Your task to perform on an android device: refresh tabs in the chrome app Image 0: 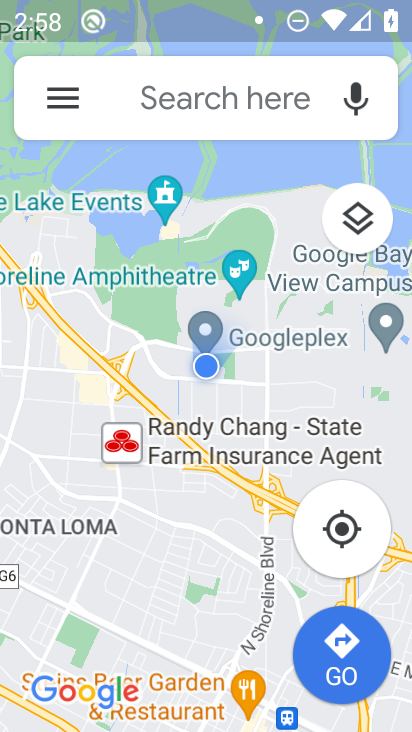
Step 0: press home button
Your task to perform on an android device: refresh tabs in the chrome app Image 1: 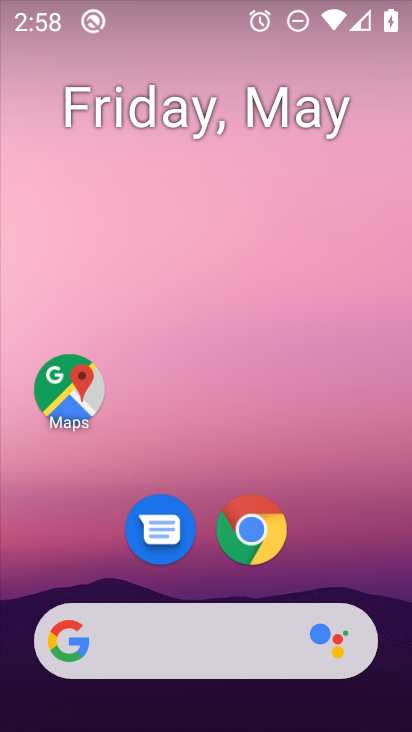
Step 1: drag from (409, 529) to (397, 173)
Your task to perform on an android device: refresh tabs in the chrome app Image 2: 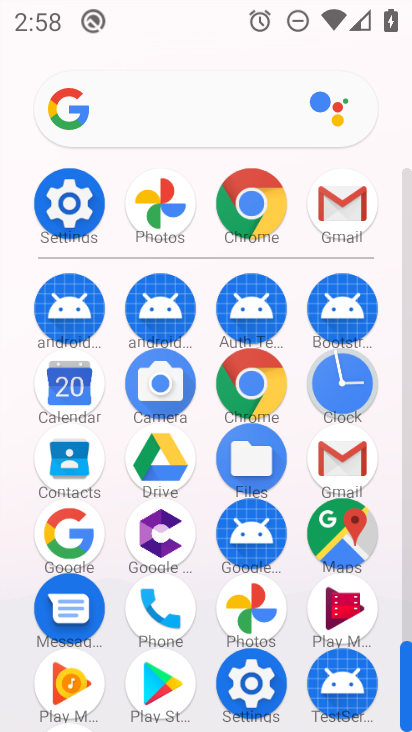
Step 2: click (247, 204)
Your task to perform on an android device: refresh tabs in the chrome app Image 3: 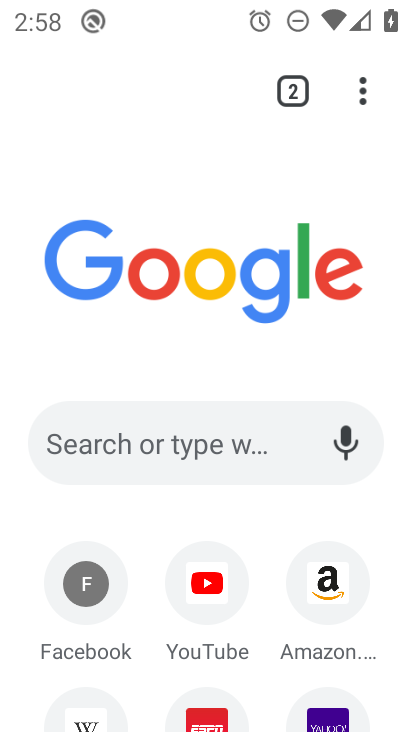
Step 3: click (361, 79)
Your task to perform on an android device: refresh tabs in the chrome app Image 4: 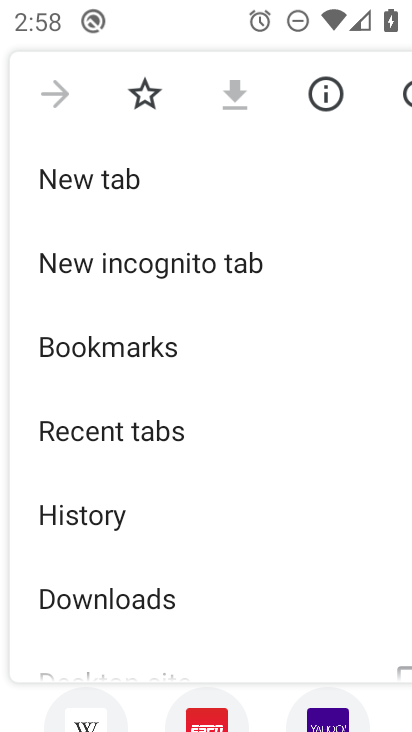
Step 4: click (407, 89)
Your task to perform on an android device: refresh tabs in the chrome app Image 5: 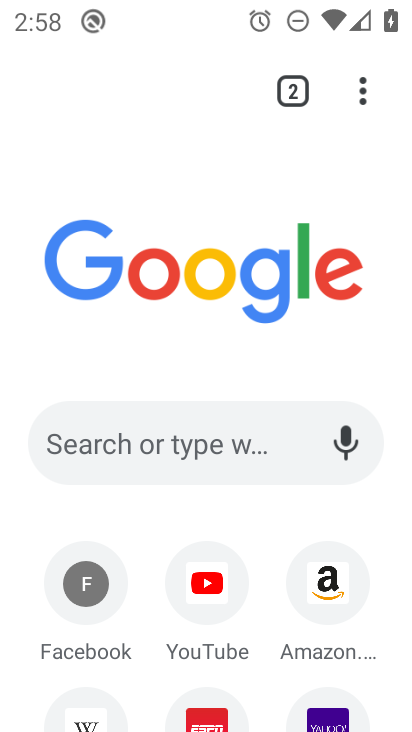
Step 5: task complete